Your task to perform on an android device: check storage Image 0: 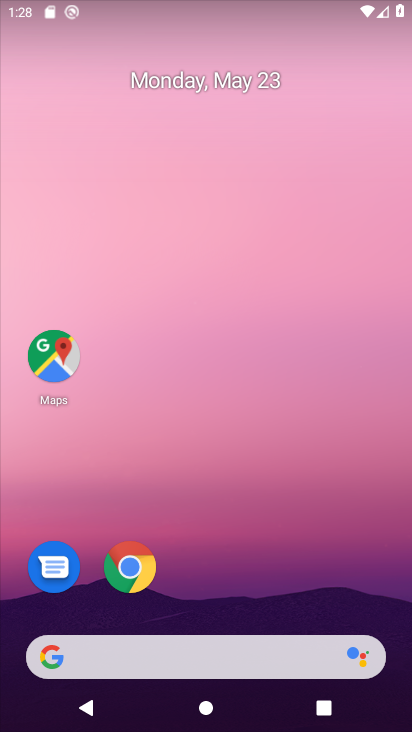
Step 0: drag from (274, 566) to (331, 124)
Your task to perform on an android device: check storage Image 1: 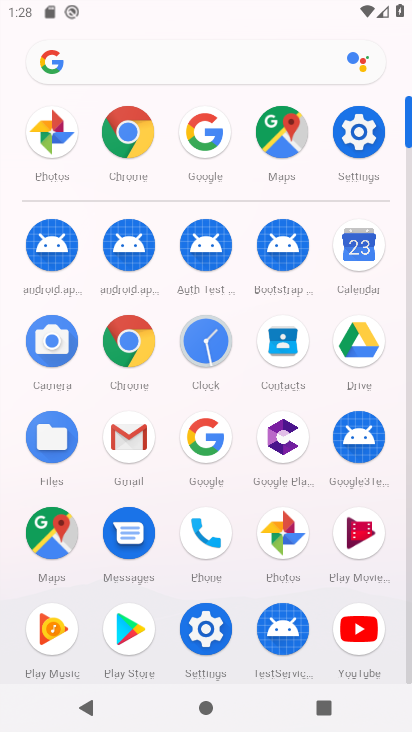
Step 1: click (359, 149)
Your task to perform on an android device: check storage Image 2: 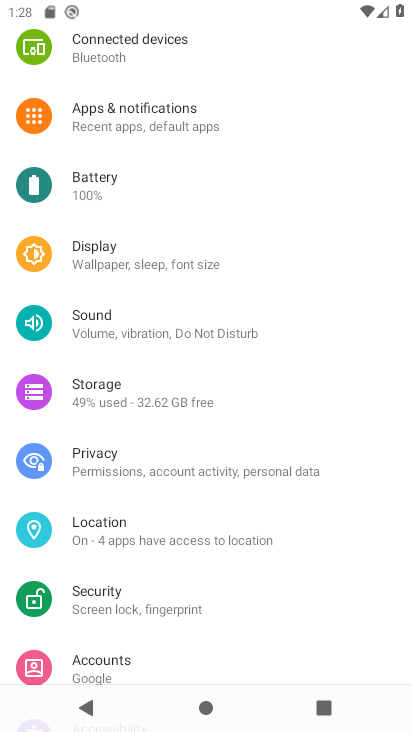
Step 2: click (139, 415)
Your task to perform on an android device: check storage Image 3: 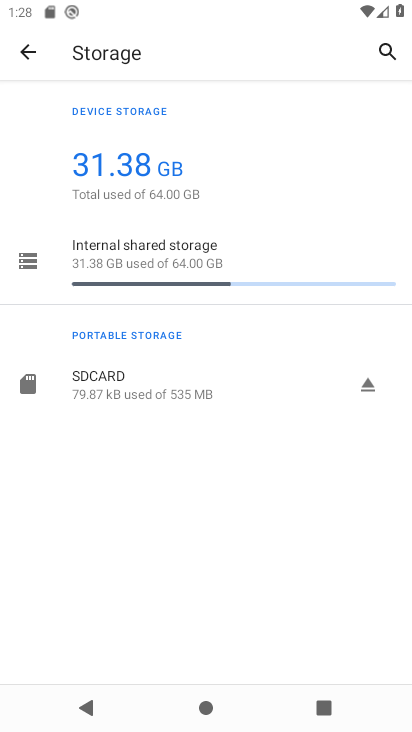
Step 3: click (170, 360)
Your task to perform on an android device: check storage Image 4: 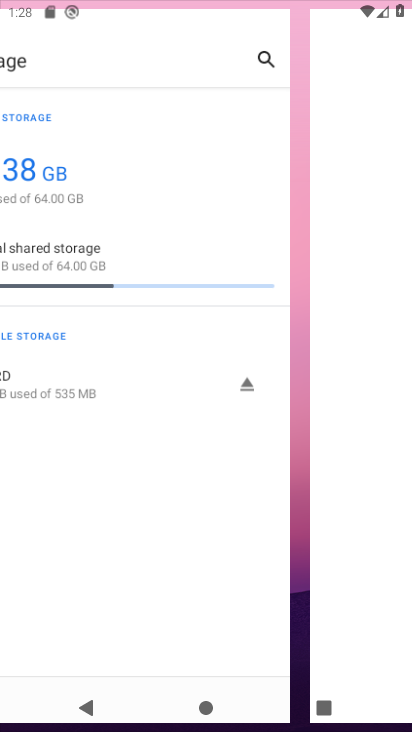
Step 4: click (194, 239)
Your task to perform on an android device: check storage Image 5: 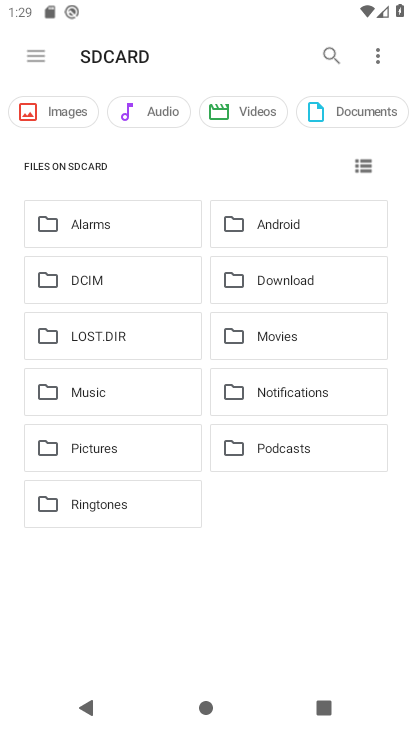
Step 5: task complete